Your task to perform on an android device: Open Google Chrome Image 0: 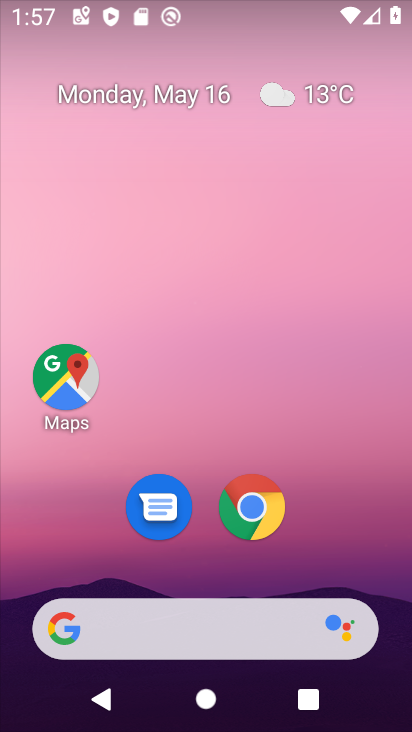
Step 0: drag from (371, 536) to (377, 71)
Your task to perform on an android device: Open Google Chrome Image 1: 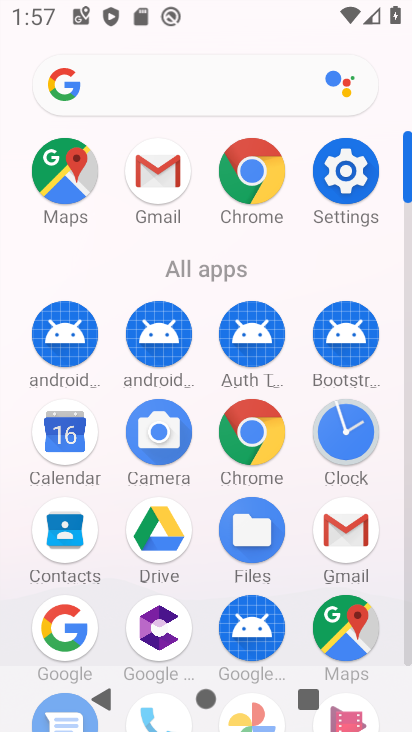
Step 1: click (261, 448)
Your task to perform on an android device: Open Google Chrome Image 2: 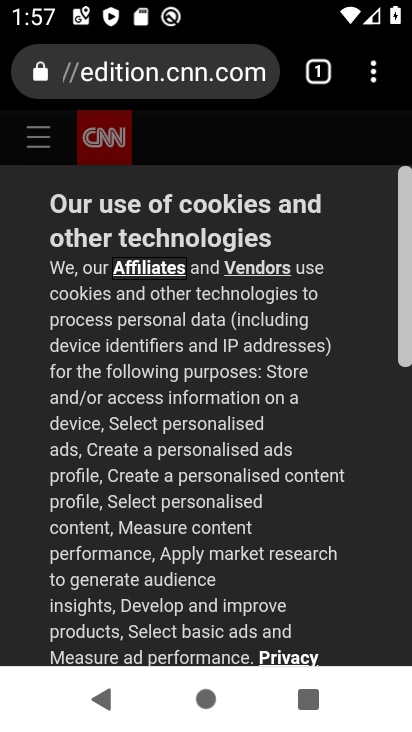
Step 2: task complete